Your task to perform on an android device: change the upload size in google photos Image 0: 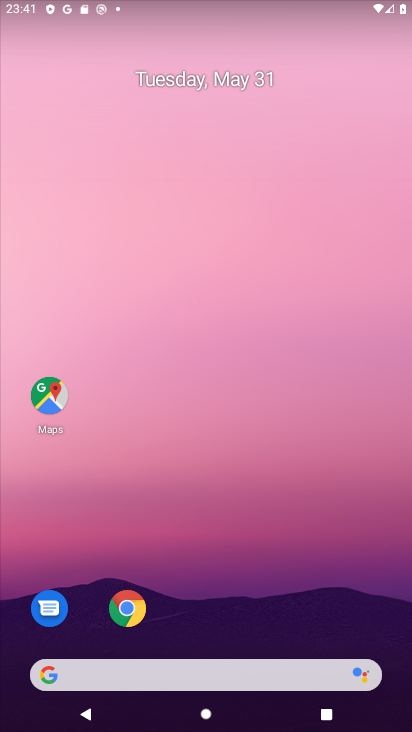
Step 0: press home button
Your task to perform on an android device: change the upload size in google photos Image 1: 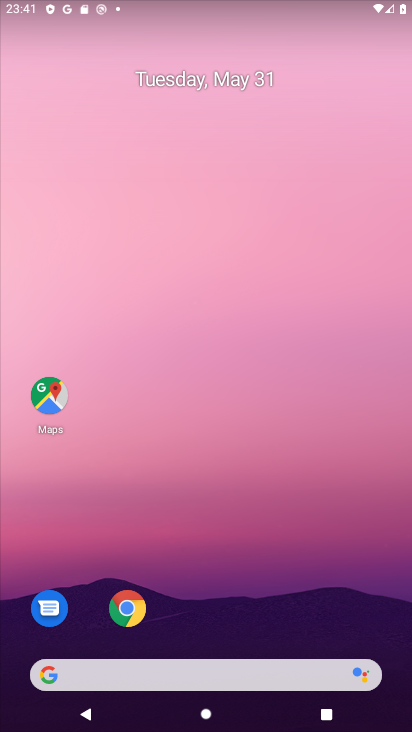
Step 1: drag from (339, 612) to (410, 63)
Your task to perform on an android device: change the upload size in google photos Image 2: 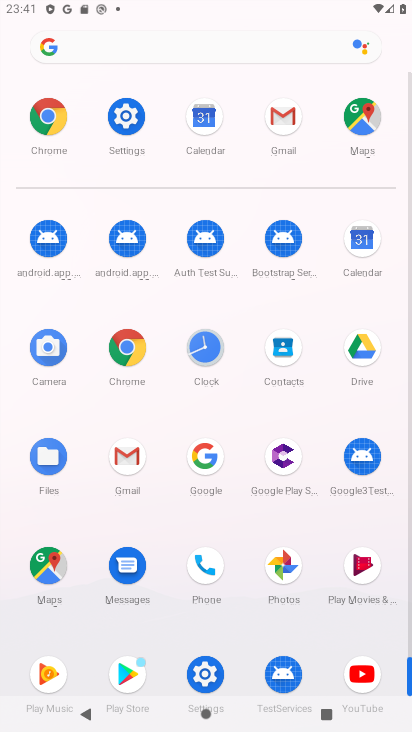
Step 2: click (266, 551)
Your task to perform on an android device: change the upload size in google photos Image 3: 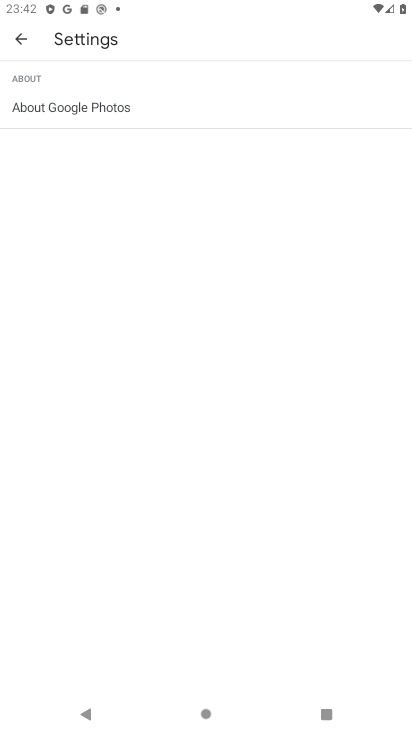
Step 3: click (7, 35)
Your task to perform on an android device: change the upload size in google photos Image 4: 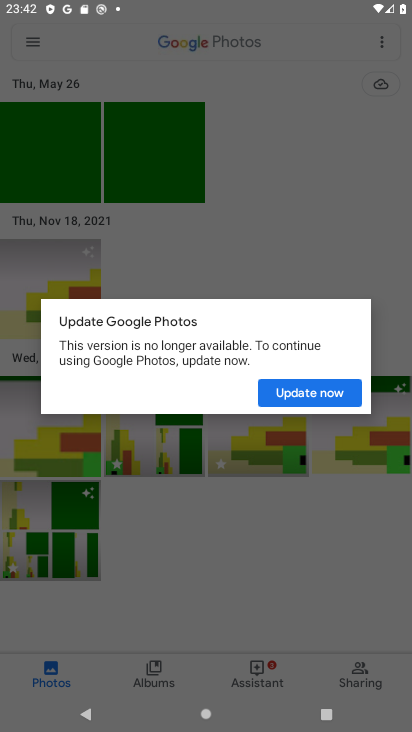
Step 4: click (277, 377)
Your task to perform on an android device: change the upload size in google photos Image 5: 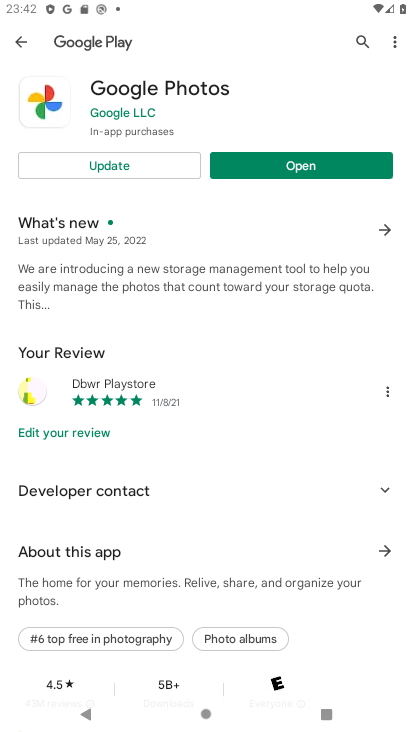
Step 5: click (98, 172)
Your task to perform on an android device: change the upload size in google photos Image 6: 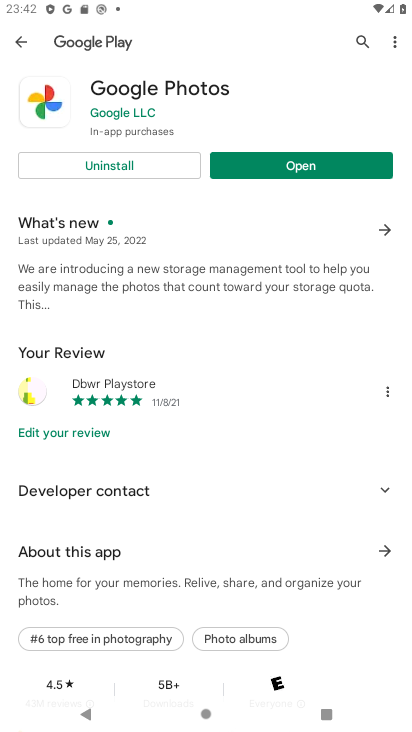
Step 6: click (302, 163)
Your task to perform on an android device: change the upload size in google photos Image 7: 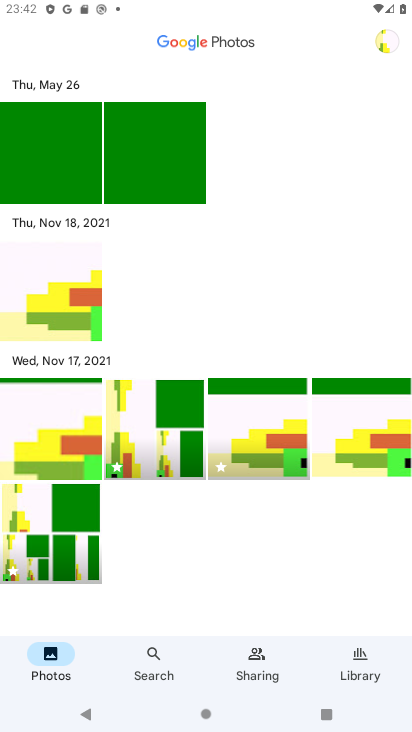
Step 7: click (386, 41)
Your task to perform on an android device: change the upload size in google photos Image 8: 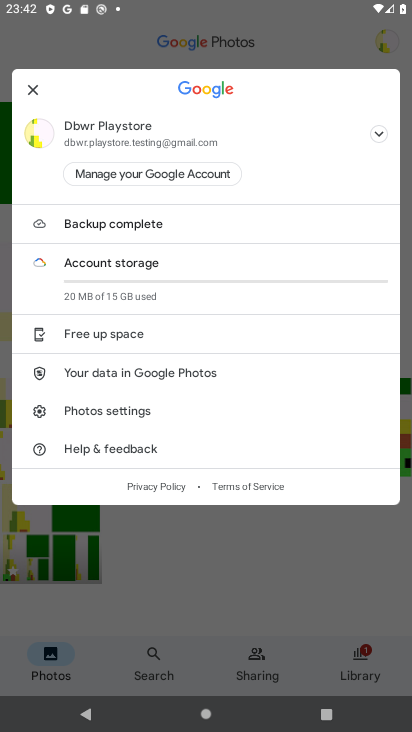
Step 8: click (109, 417)
Your task to perform on an android device: change the upload size in google photos Image 9: 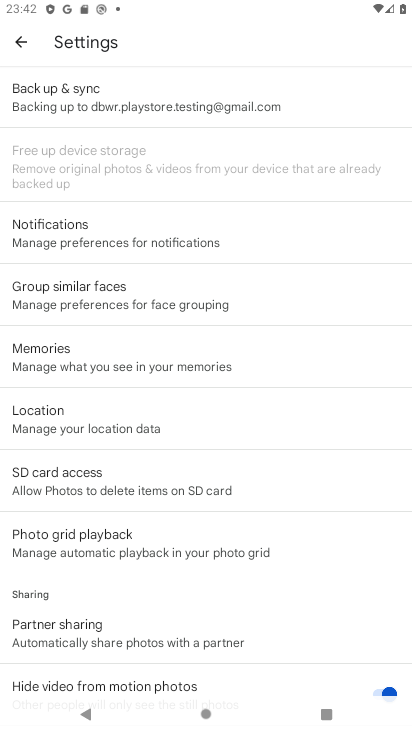
Step 9: click (206, 104)
Your task to perform on an android device: change the upload size in google photos Image 10: 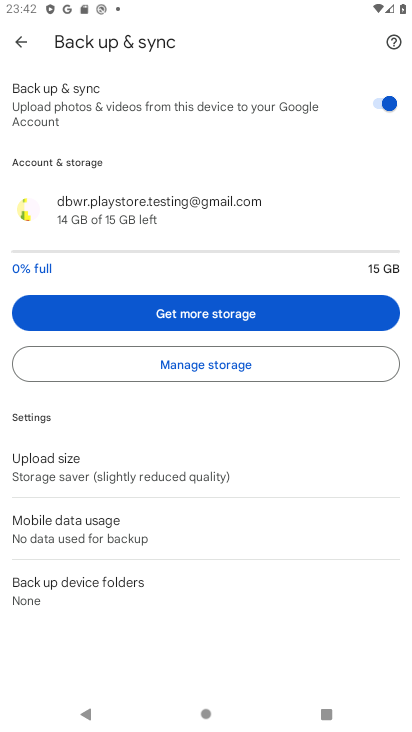
Step 10: click (83, 473)
Your task to perform on an android device: change the upload size in google photos Image 11: 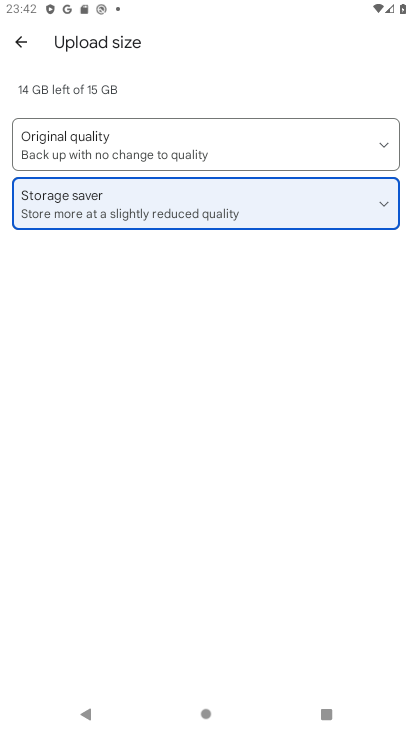
Step 11: click (145, 148)
Your task to perform on an android device: change the upload size in google photos Image 12: 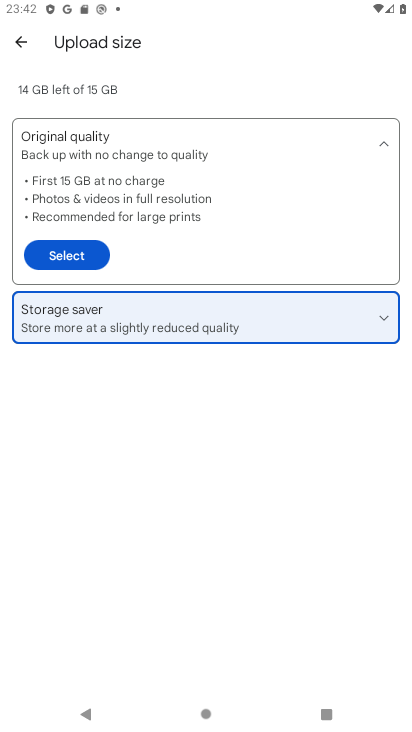
Step 12: click (94, 262)
Your task to perform on an android device: change the upload size in google photos Image 13: 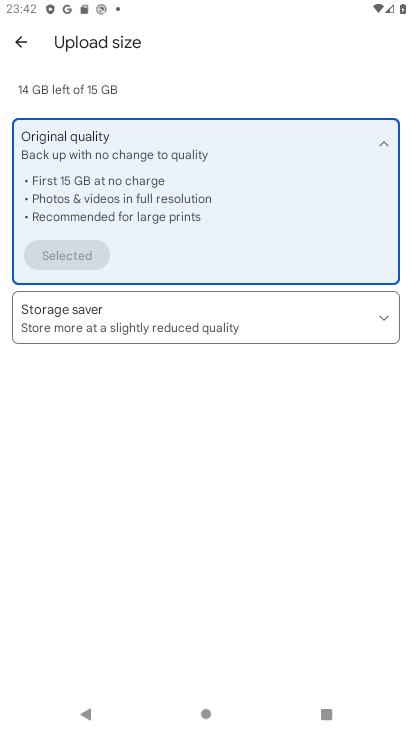
Step 13: task complete